Your task to perform on an android device: Do I have any events today? Image 0: 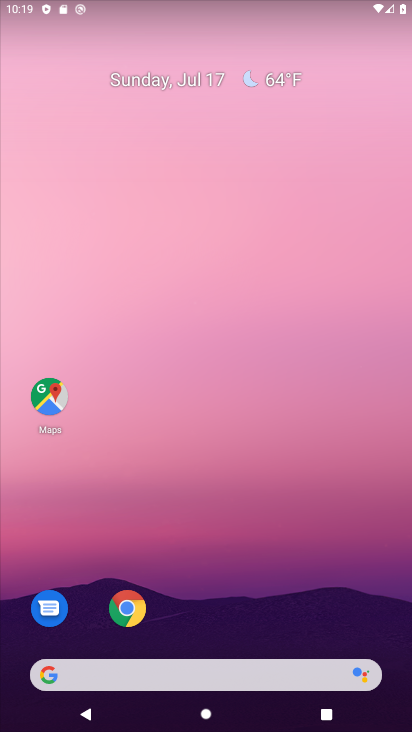
Step 0: drag from (380, 639) to (183, 7)
Your task to perform on an android device: Do I have any events today? Image 1: 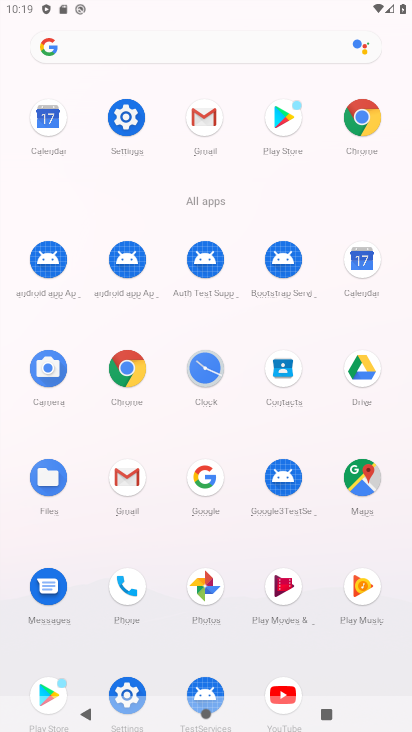
Step 1: click (359, 277)
Your task to perform on an android device: Do I have any events today? Image 2: 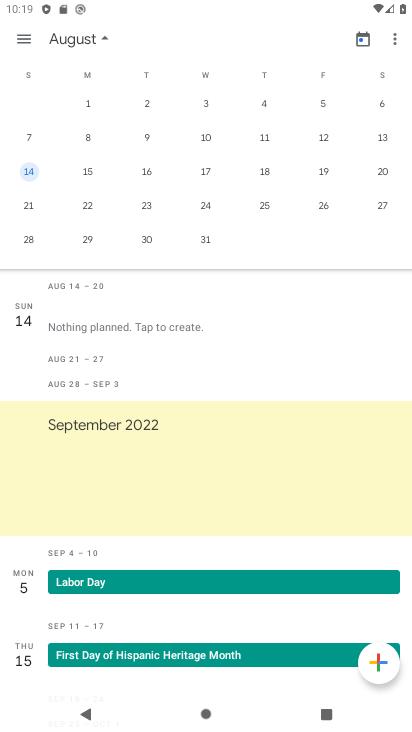
Step 2: task complete